Your task to perform on an android device: change the clock display to analog Image 0: 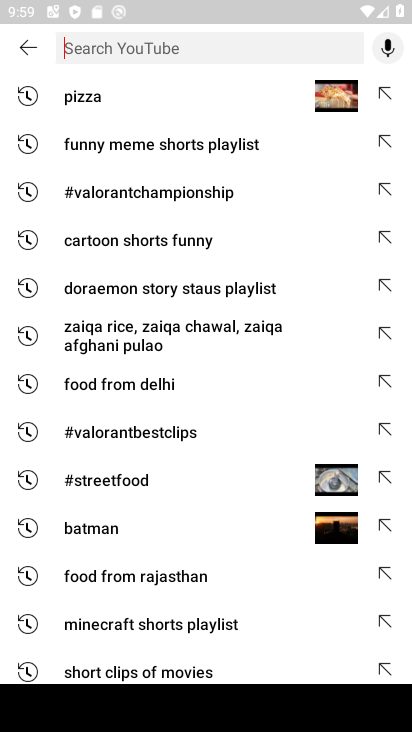
Step 0: press home button
Your task to perform on an android device: change the clock display to analog Image 1: 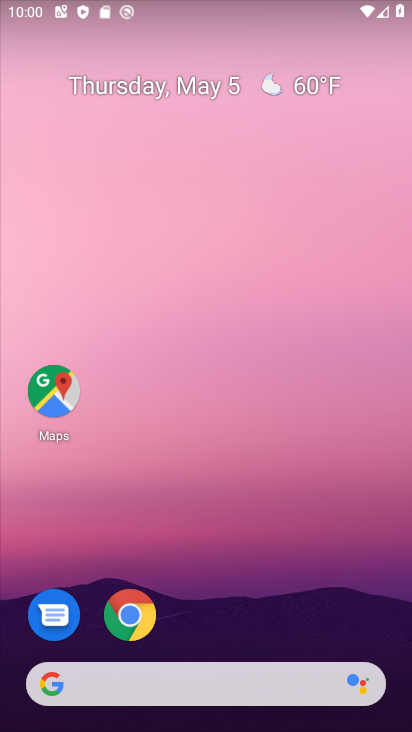
Step 1: drag from (196, 607) to (208, 149)
Your task to perform on an android device: change the clock display to analog Image 2: 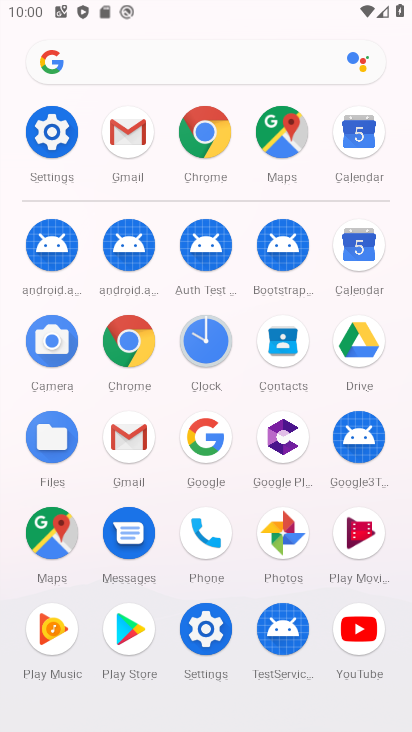
Step 2: click (207, 347)
Your task to perform on an android device: change the clock display to analog Image 3: 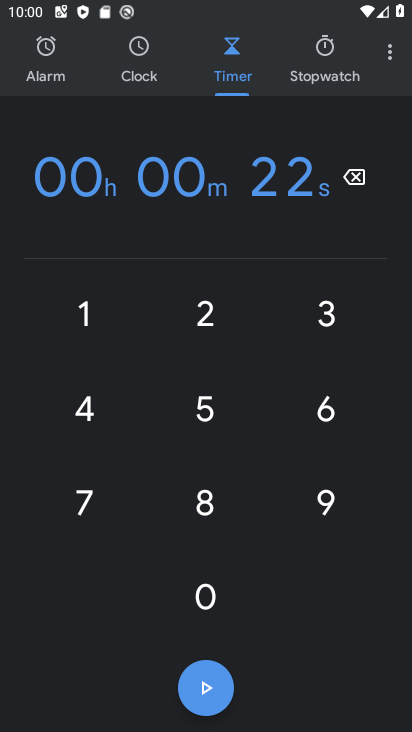
Step 3: click (385, 47)
Your task to perform on an android device: change the clock display to analog Image 4: 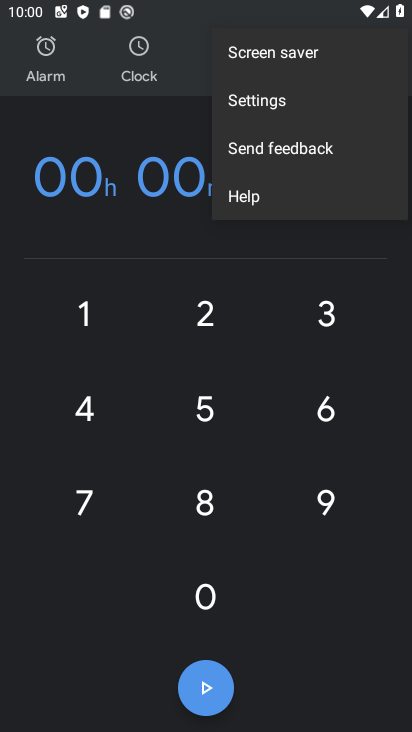
Step 4: click (286, 97)
Your task to perform on an android device: change the clock display to analog Image 5: 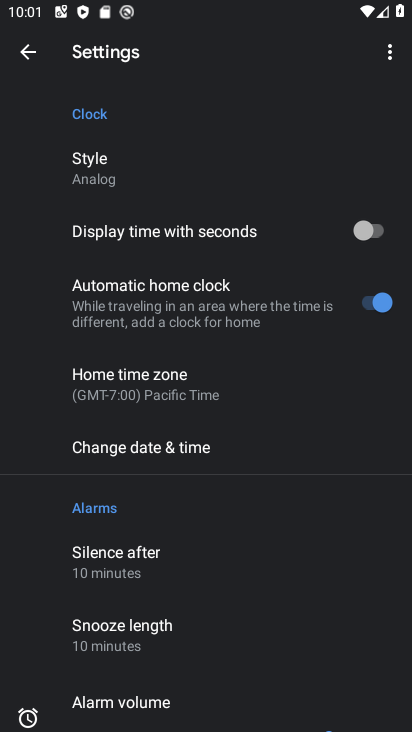
Step 5: click (367, 236)
Your task to perform on an android device: change the clock display to analog Image 6: 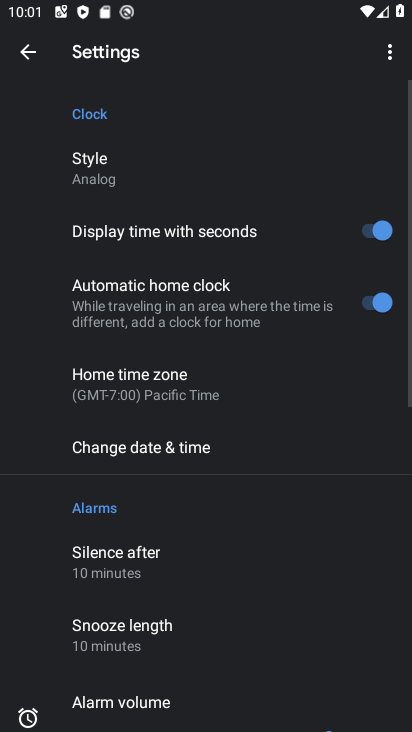
Step 6: task complete